Your task to perform on an android device: Go to Google Image 0: 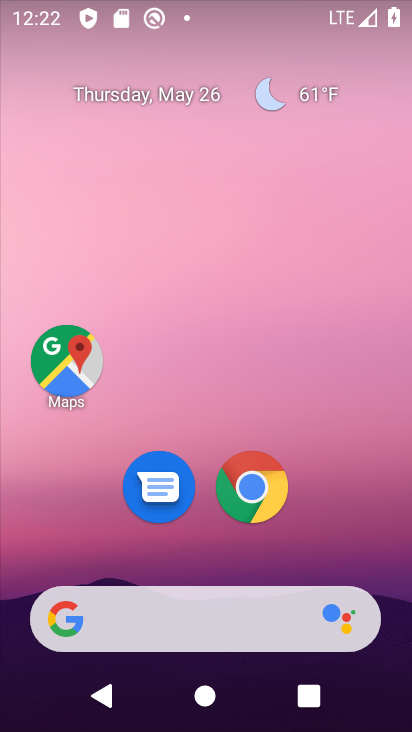
Step 0: drag from (335, 693) to (248, 226)
Your task to perform on an android device: Go to Google Image 1: 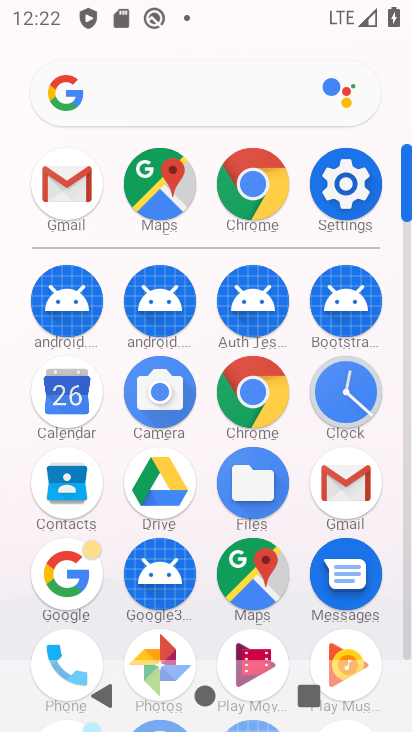
Step 1: click (68, 585)
Your task to perform on an android device: Go to Google Image 2: 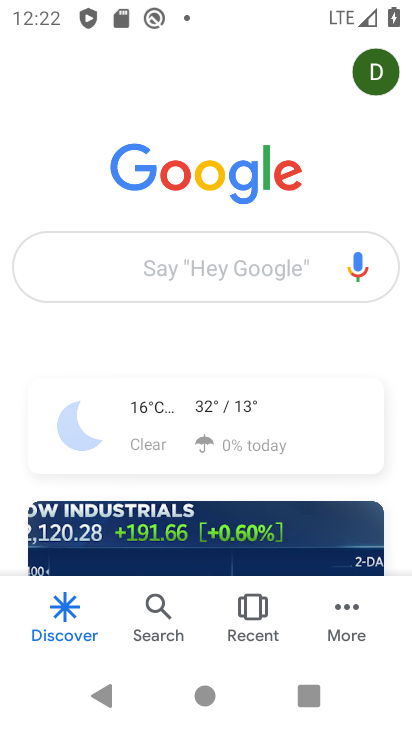
Step 2: task complete